Your task to perform on an android device: toggle notification dots Image 0: 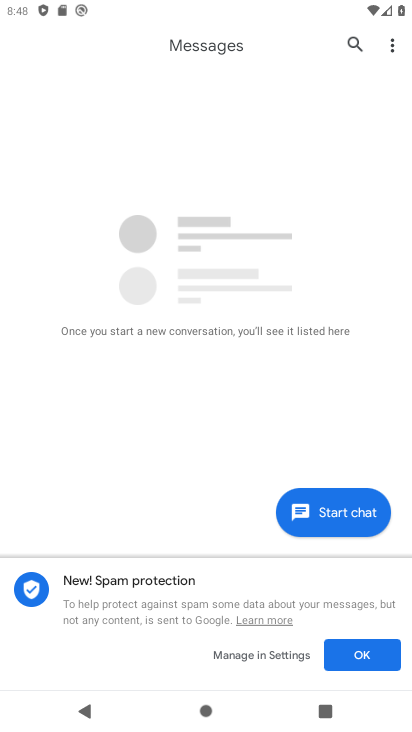
Step 0: press home button
Your task to perform on an android device: toggle notification dots Image 1: 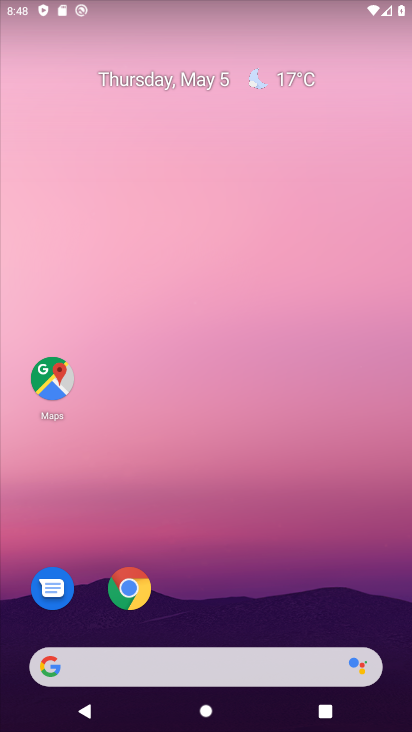
Step 1: drag from (211, 470) to (245, 206)
Your task to perform on an android device: toggle notification dots Image 2: 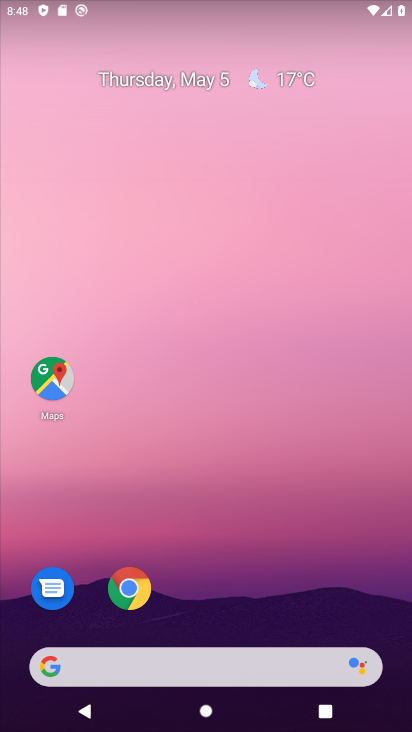
Step 2: drag from (213, 612) to (239, 205)
Your task to perform on an android device: toggle notification dots Image 3: 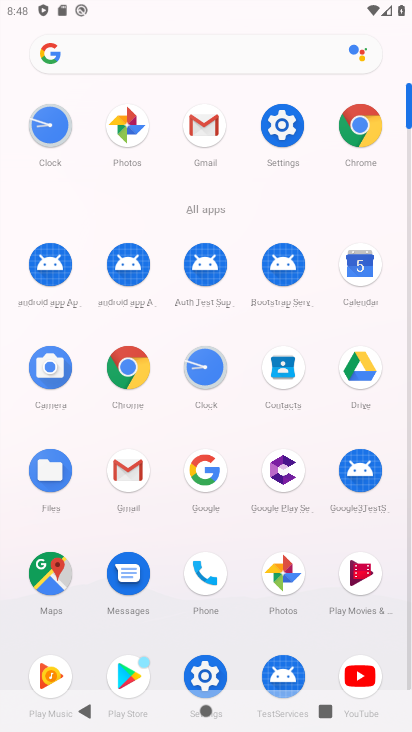
Step 3: click (270, 116)
Your task to perform on an android device: toggle notification dots Image 4: 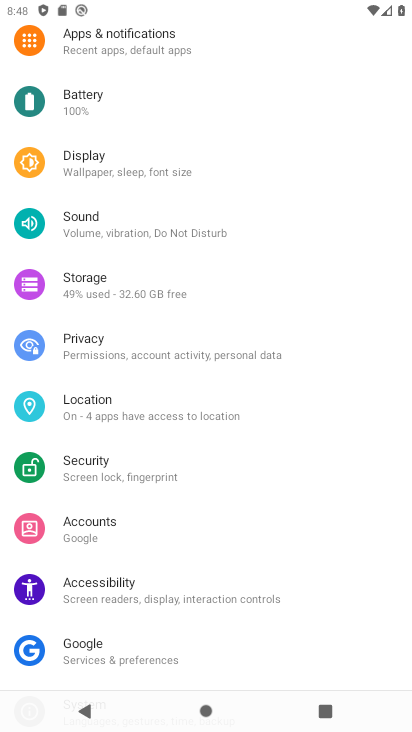
Step 4: click (166, 730)
Your task to perform on an android device: toggle notification dots Image 5: 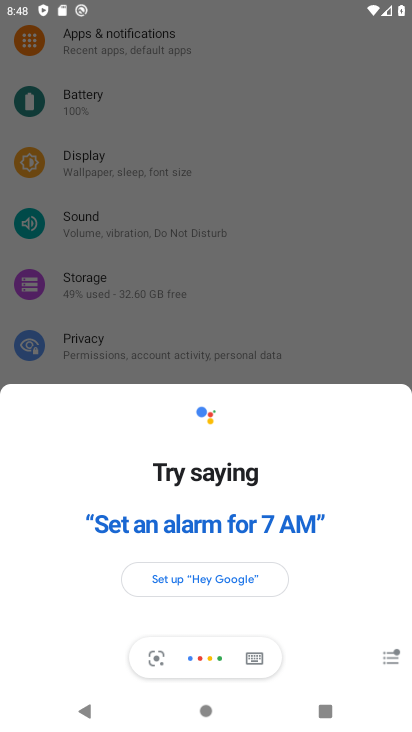
Step 5: click (263, 149)
Your task to perform on an android device: toggle notification dots Image 6: 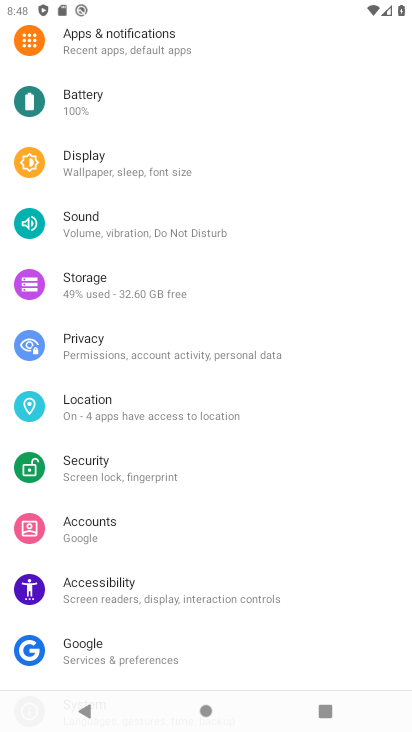
Step 6: drag from (198, 104) to (239, 443)
Your task to perform on an android device: toggle notification dots Image 7: 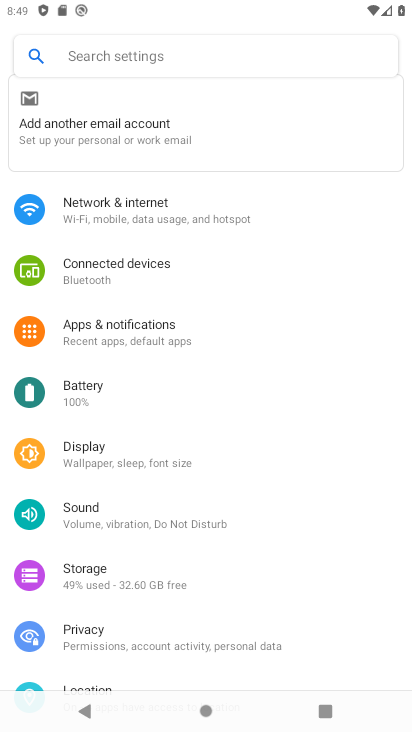
Step 7: click (147, 54)
Your task to perform on an android device: toggle notification dots Image 8: 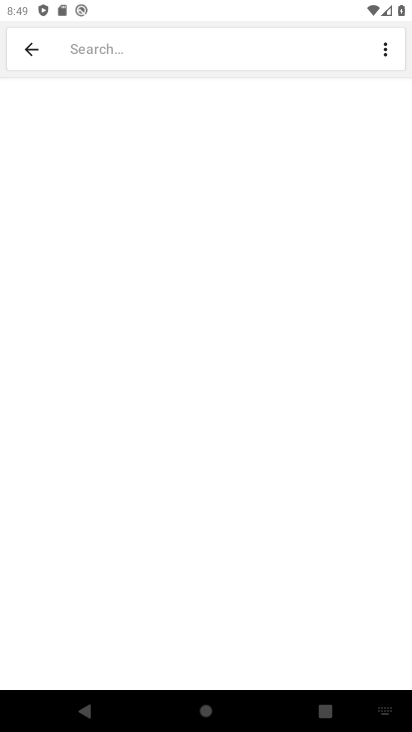
Step 8: type " notification dots"
Your task to perform on an android device: toggle notification dots Image 9: 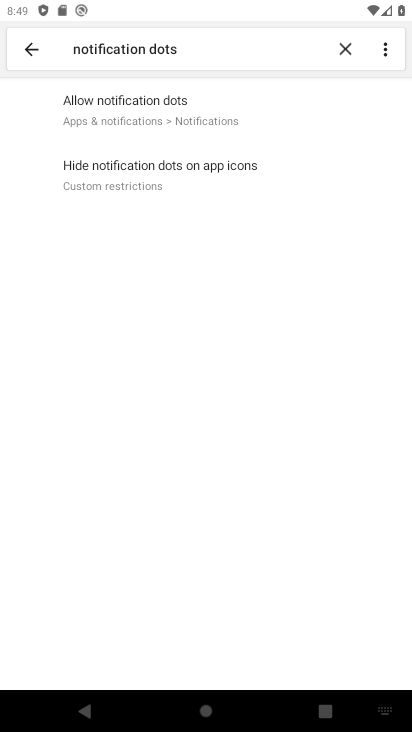
Step 9: click (188, 114)
Your task to perform on an android device: toggle notification dots Image 10: 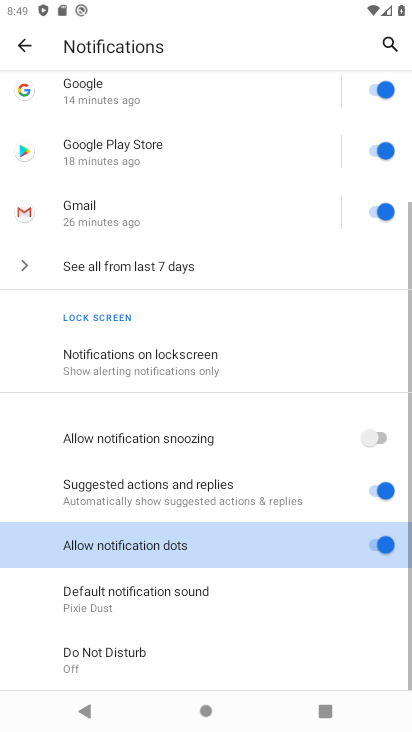
Step 10: click (373, 538)
Your task to perform on an android device: toggle notification dots Image 11: 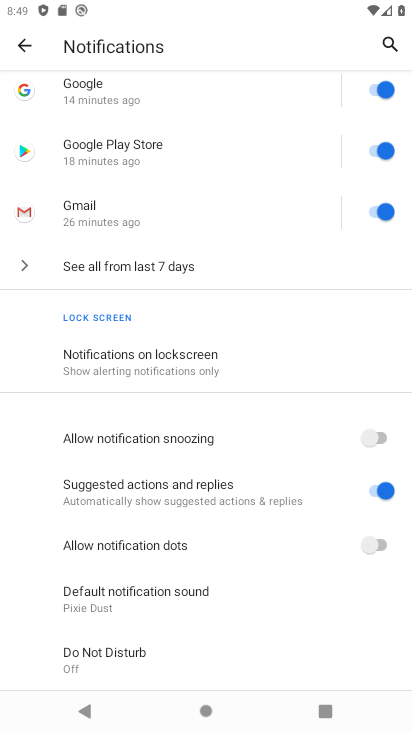
Step 11: task complete